Your task to perform on an android device: Search for top rated burger restaurants on Google Maps Image 0: 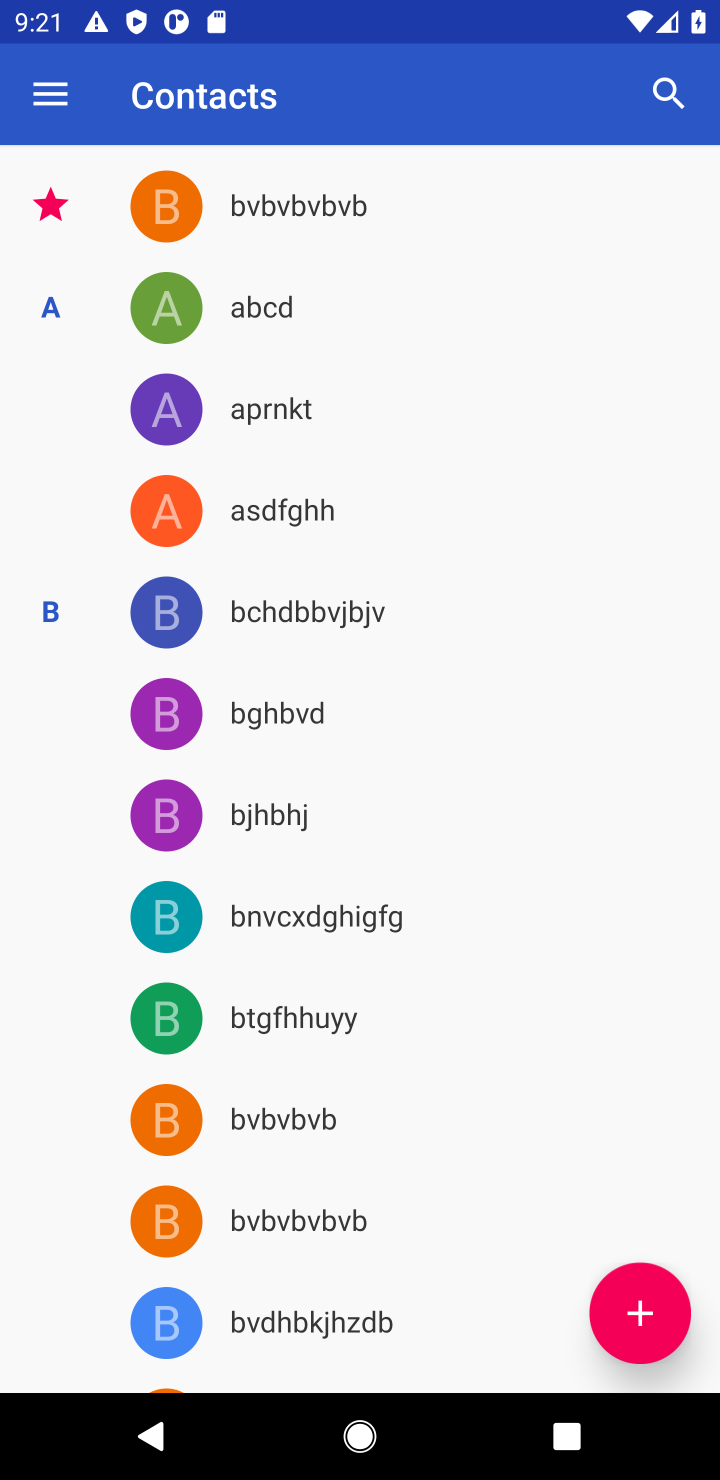
Step 0: press home button
Your task to perform on an android device: Search for top rated burger restaurants on Google Maps Image 1: 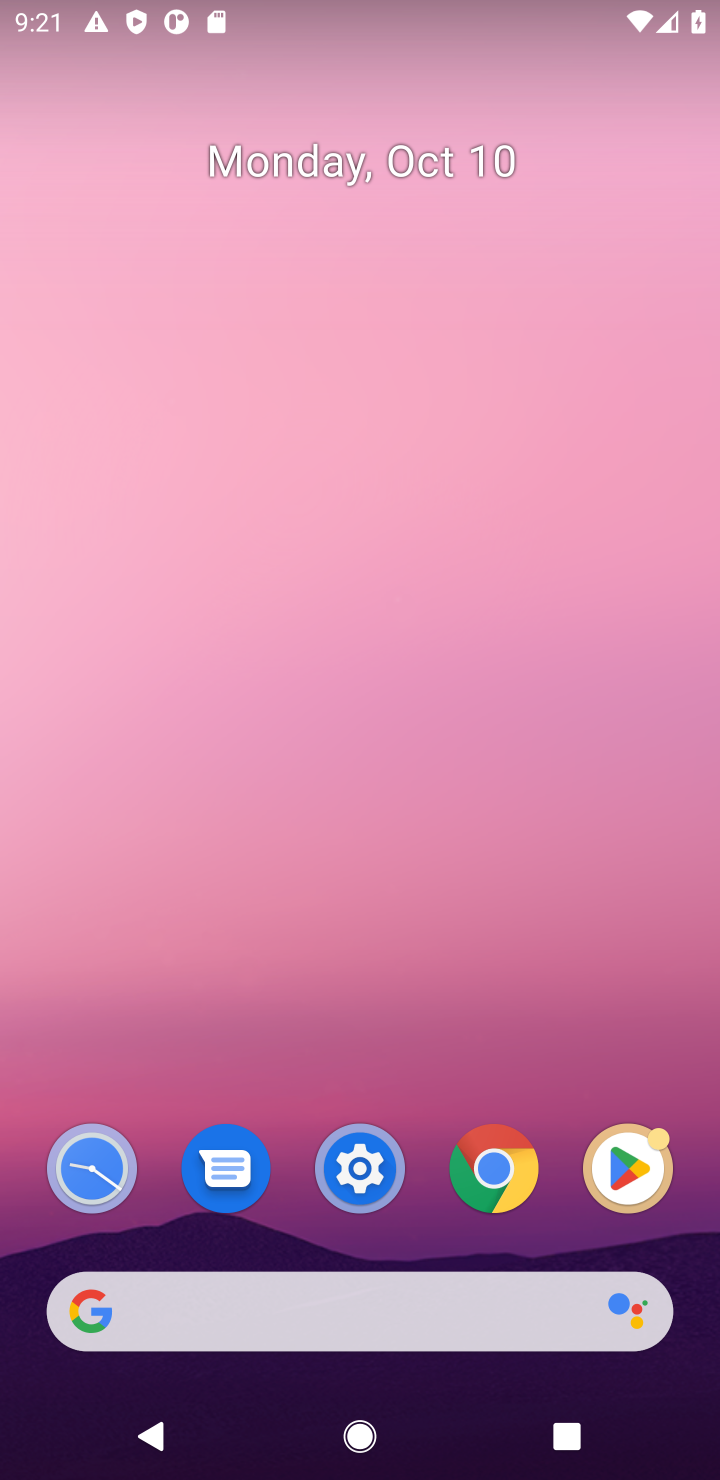
Step 1: drag from (479, 1078) to (353, 449)
Your task to perform on an android device: Search for top rated burger restaurants on Google Maps Image 2: 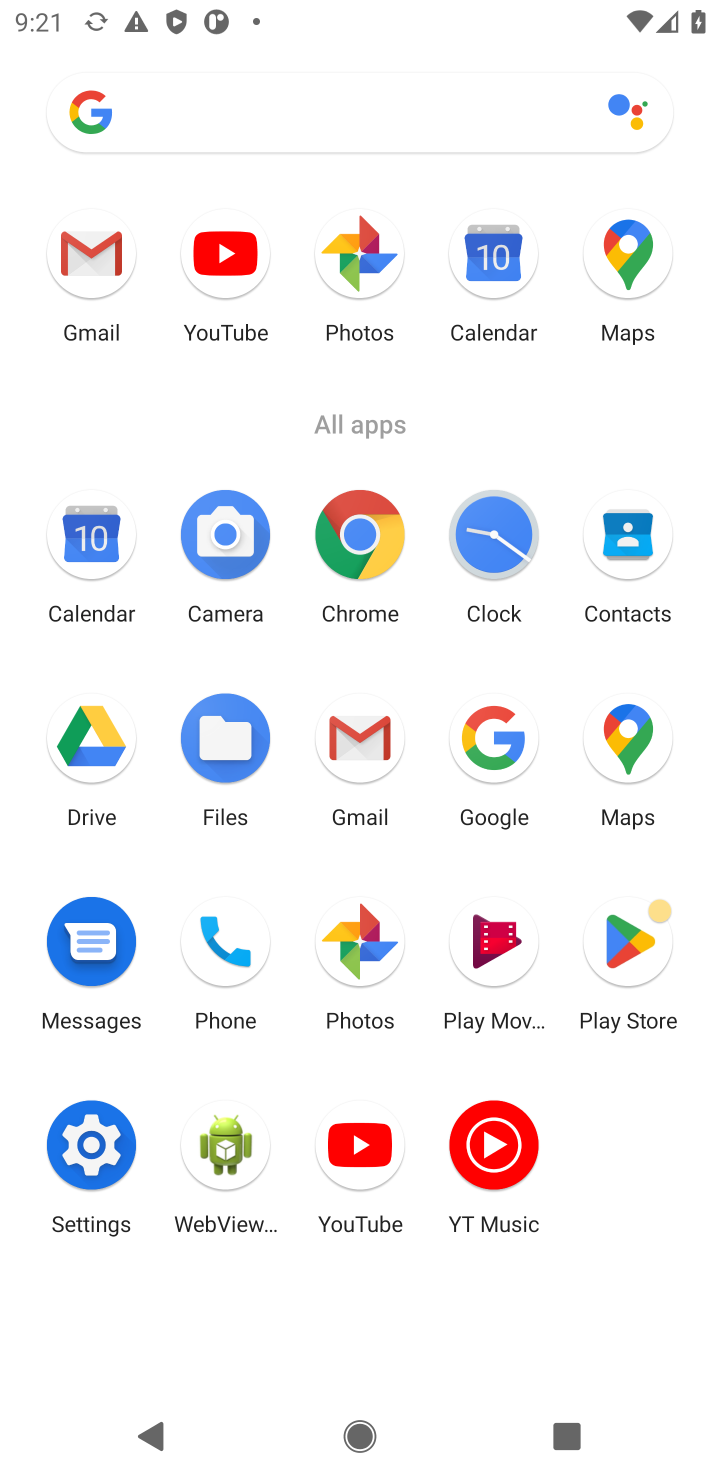
Step 2: click (640, 257)
Your task to perform on an android device: Search for top rated burger restaurants on Google Maps Image 3: 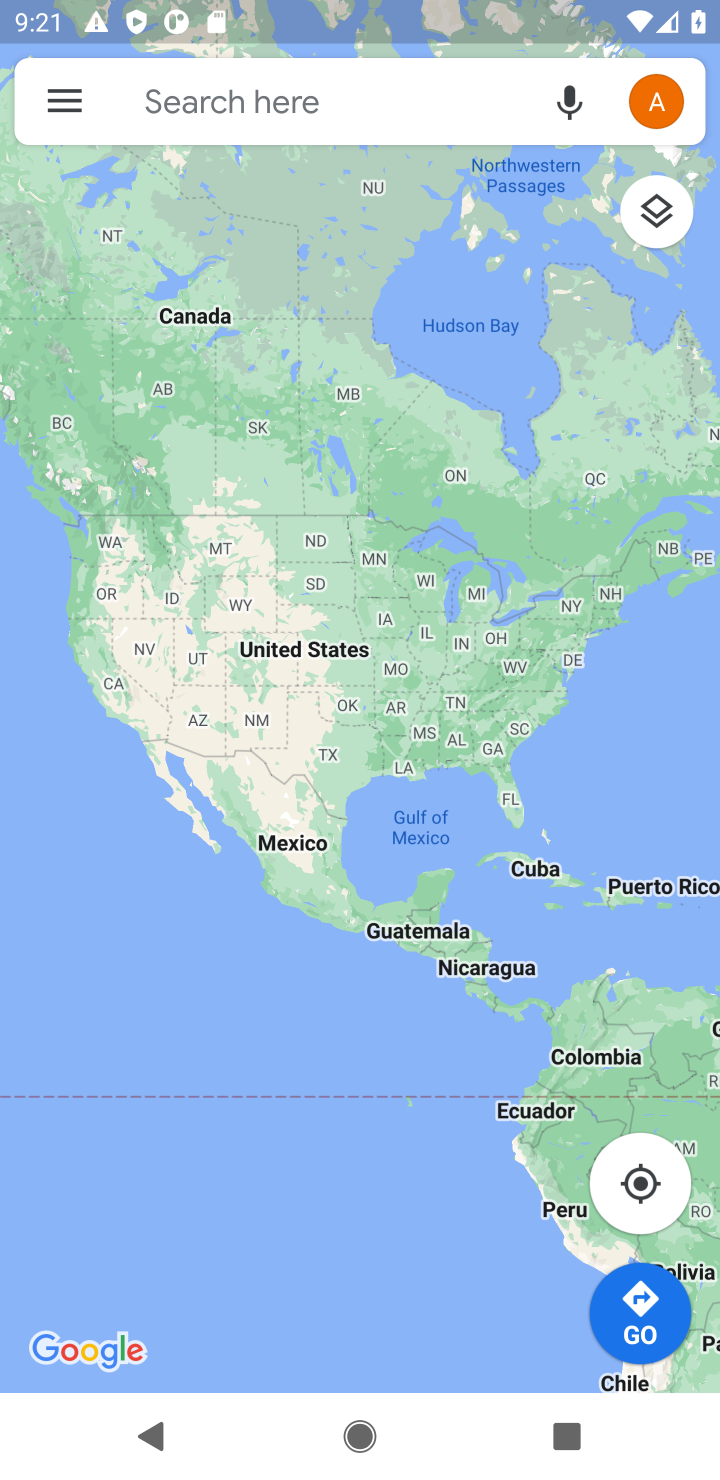
Step 3: click (361, 131)
Your task to perform on an android device: Search for top rated burger restaurants on Google Maps Image 4: 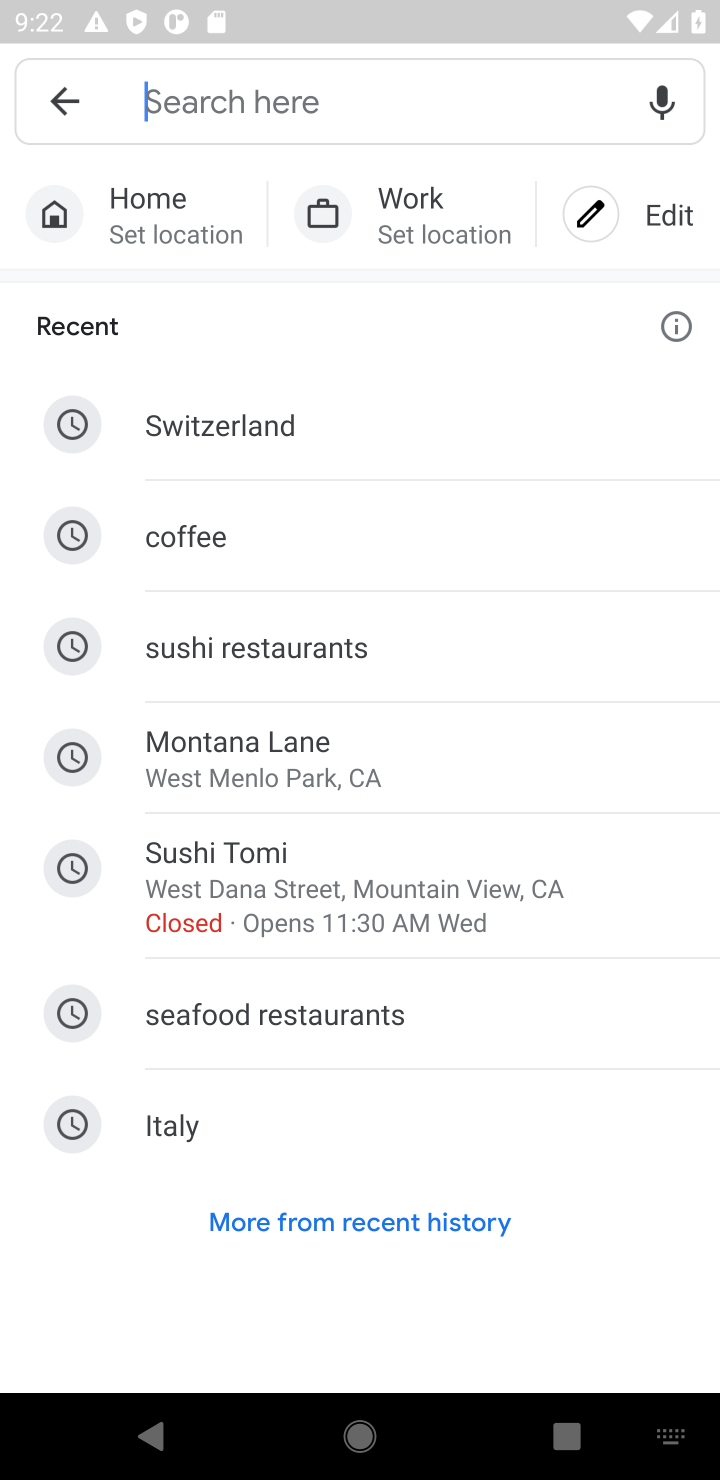
Step 4: type "top rated burger restaurants"
Your task to perform on an android device: Search for top rated burger restaurants on Google Maps Image 5: 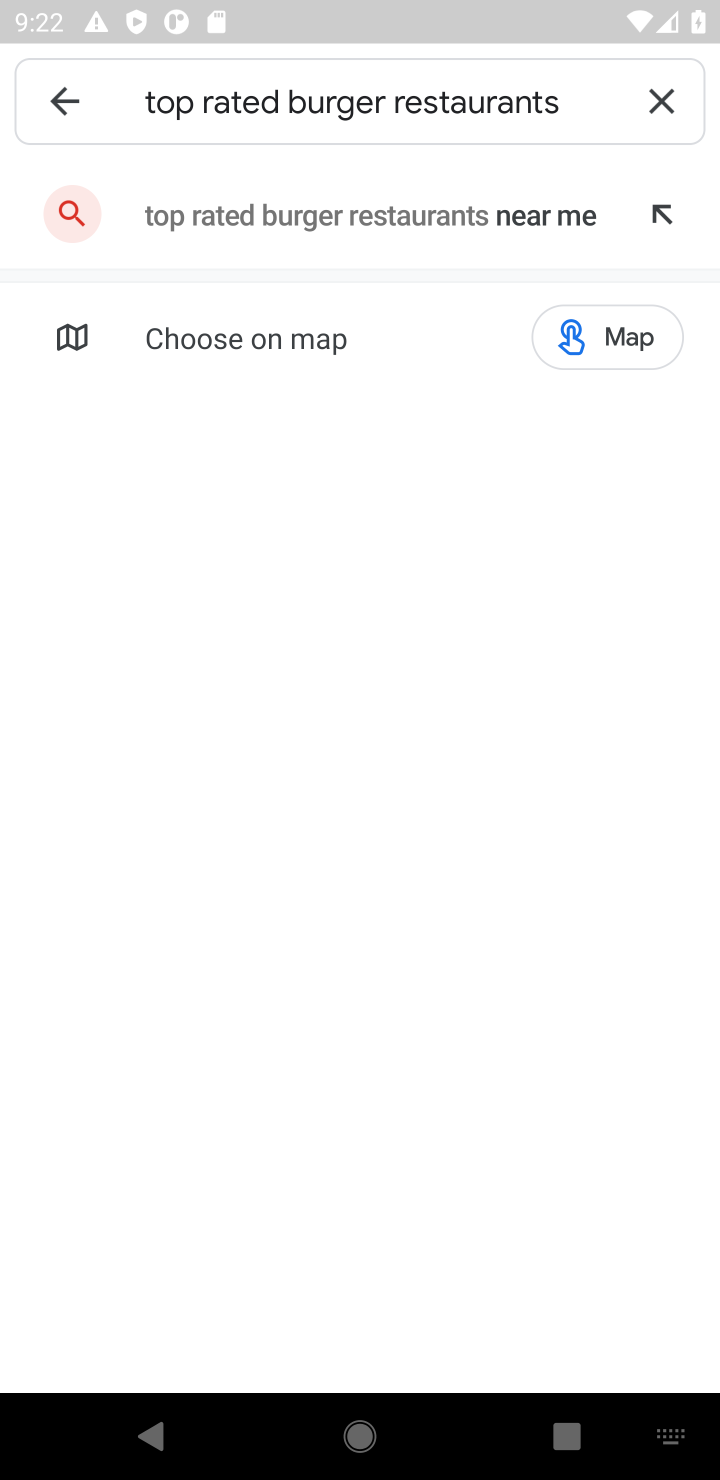
Step 5: press enter
Your task to perform on an android device: Search for top rated burger restaurants on Google Maps Image 6: 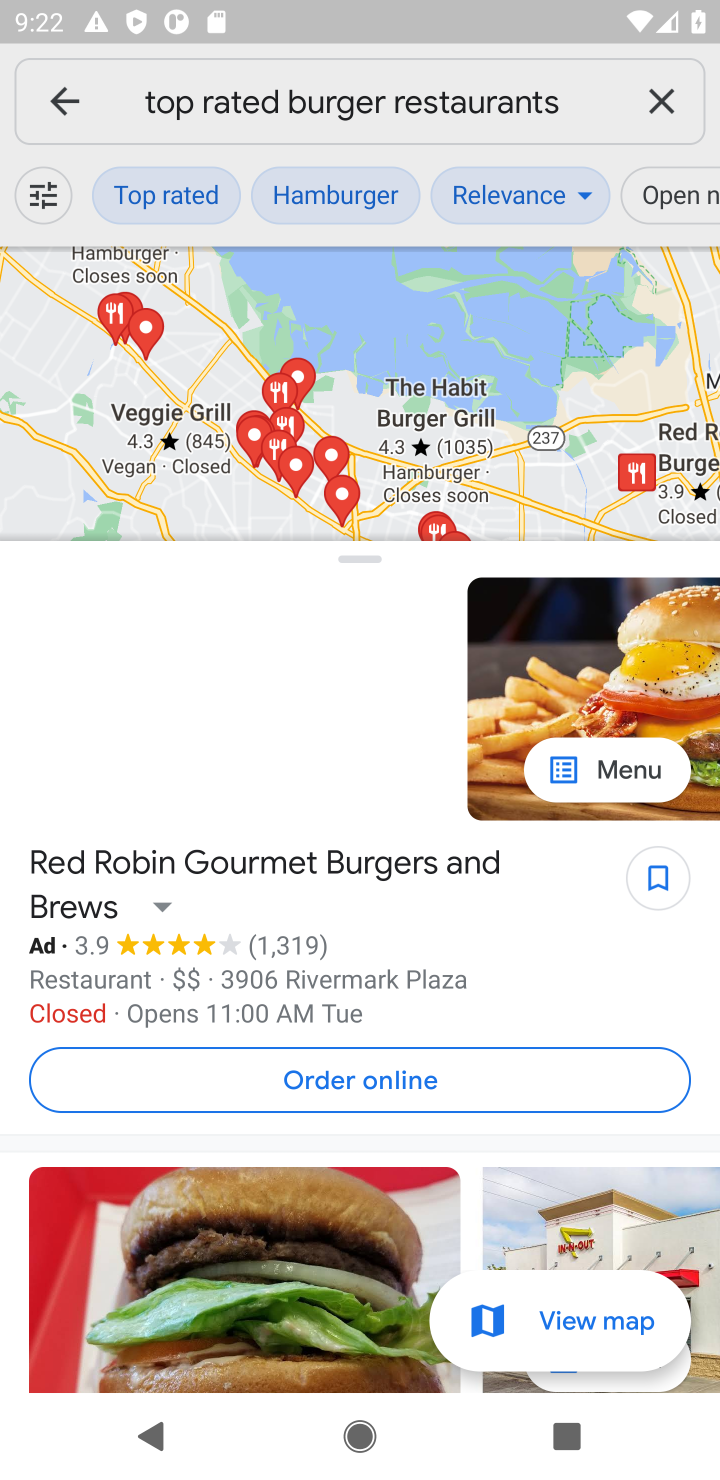
Step 6: task complete